Your task to perform on an android device: Go to privacy settings Image 0: 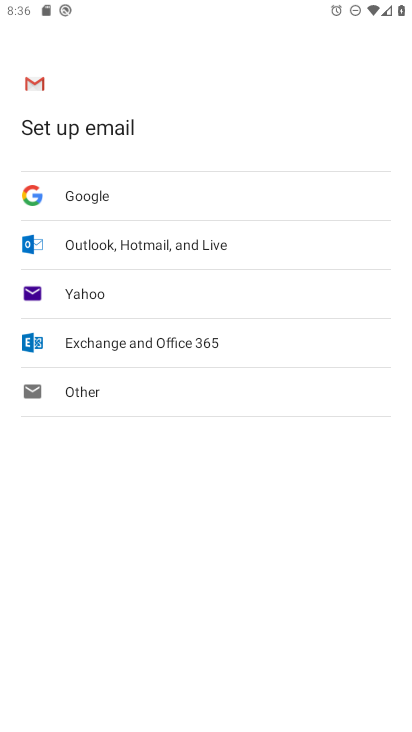
Step 0: press home button
Your task to perform on an android device: Go to privacy settings Image 1: 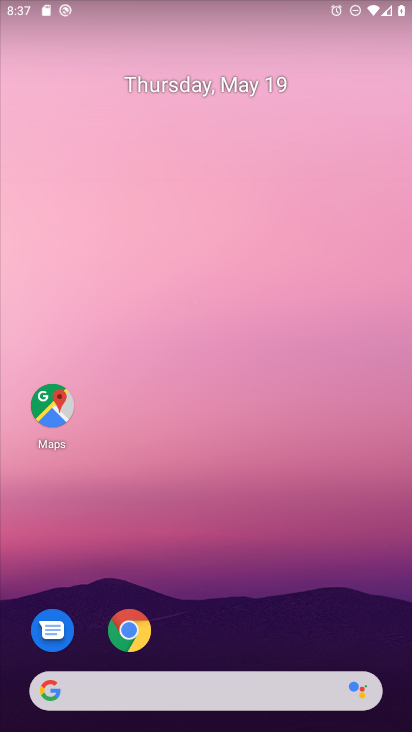
Step 1: drag from (166, 666) to (195, 276)
Your task to perform on an android device: Go to privacy settings Image 2: 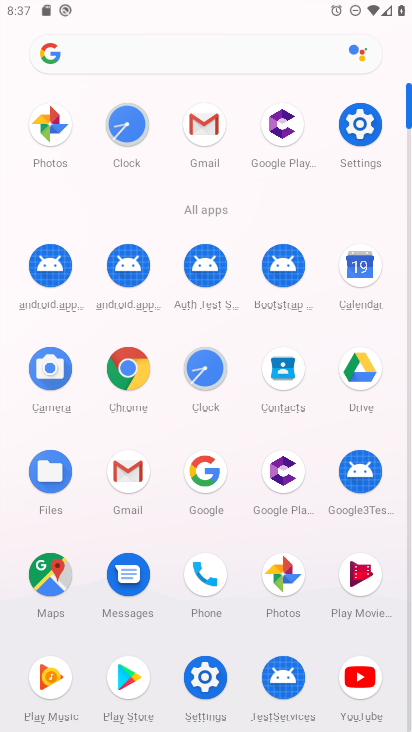
Step 2: click (378, 131)
Your task to perform on an android device: Go to privacy settings Image 3: 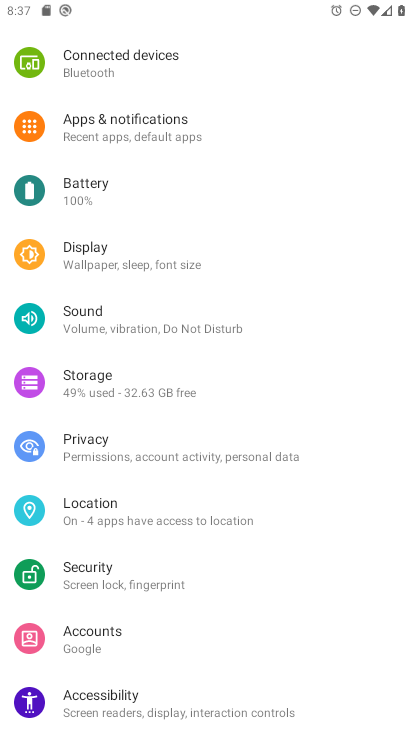
Step 3: click (93, 455)
Your task to perform on an android device: Go to privacy settings Image 4: 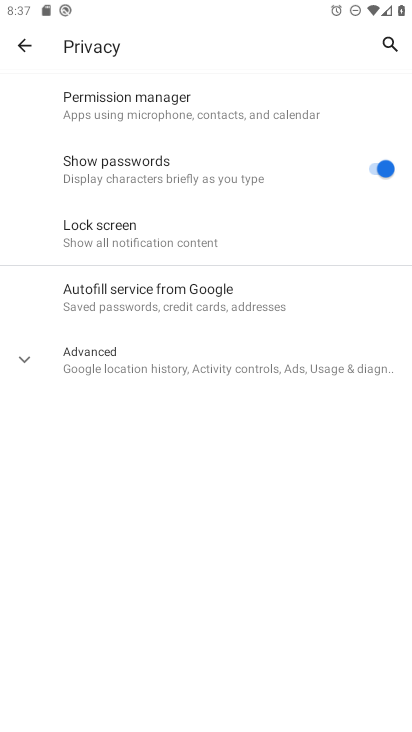
Step 4: task complete